Your task to perform on an android device: Set the phone to "Do not disturb". Image 0: 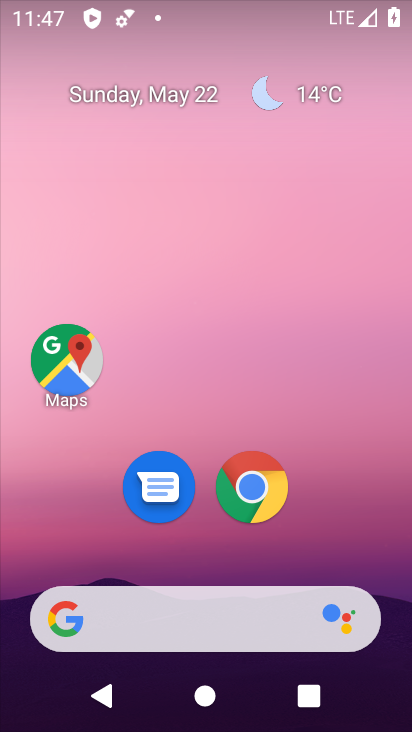
Step 0: drag from (348, 435) to (307, 23)
Your task to perform on an android device: Set the phone to "Do not disturb". Image 1: 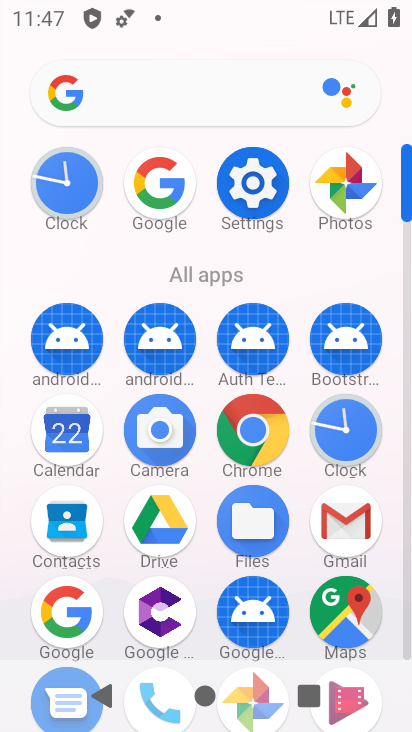
Step 1: click (246, 185)
Your task to perform on an android device: Set the phone to "Do not disturb". Image 2: 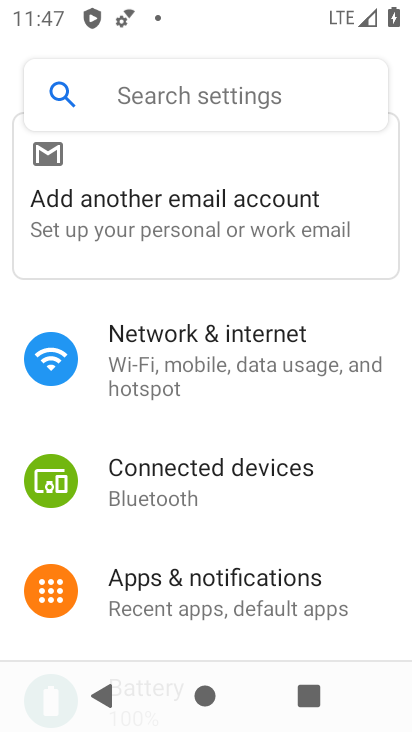
Step 2: drag from (209, 643) to (178, 191)
Your task to perform on an android device: Set the phone to "Do not disturb". Image 3: 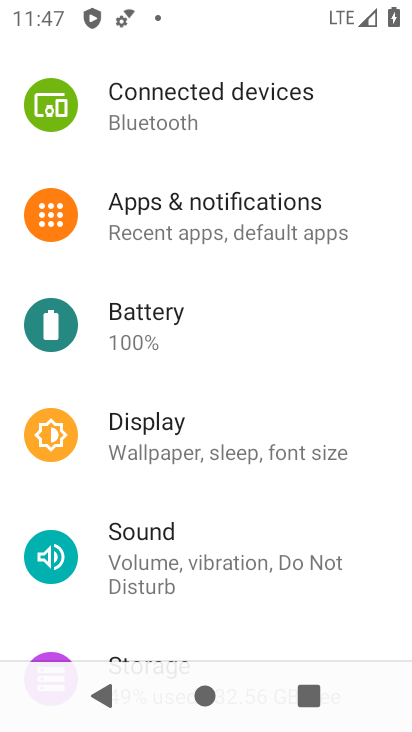
Step 3: drag from (240, 571) to (228, 249)
Your task to perform on an android device: Set the phone to "Do not disturb". Image 4: 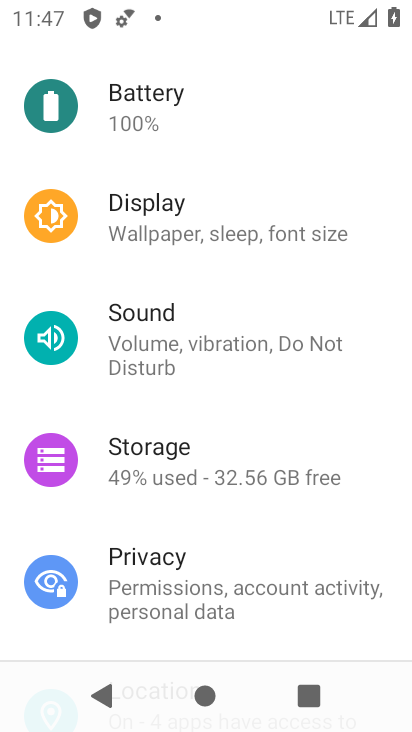
Step 4: click (186, 341)
Your task to perform on an android device: Set the phone to "Do not disturb". Image 5: 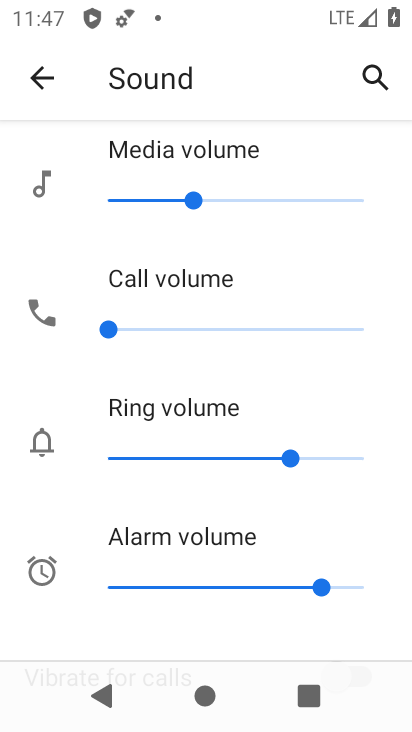
Step 5: task complete